Your task to perform on an android device: Open the stopwatch Image 0: 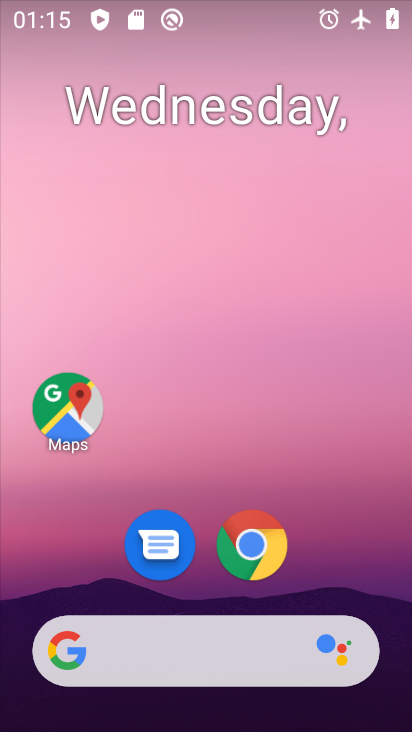
Step 0: drag from (334, 553) to (307, 145)
Your task to perform on an android device: Open the stopwatch Image 1: 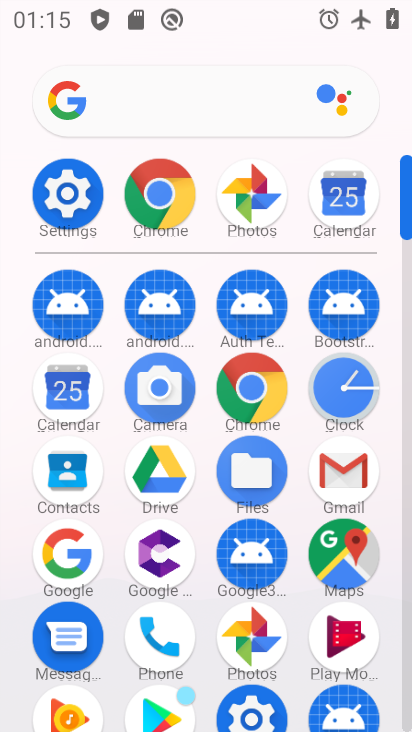
Step 1: click (356, 385)
Your task to perform on an android device: Open the stopwatch Image 2: 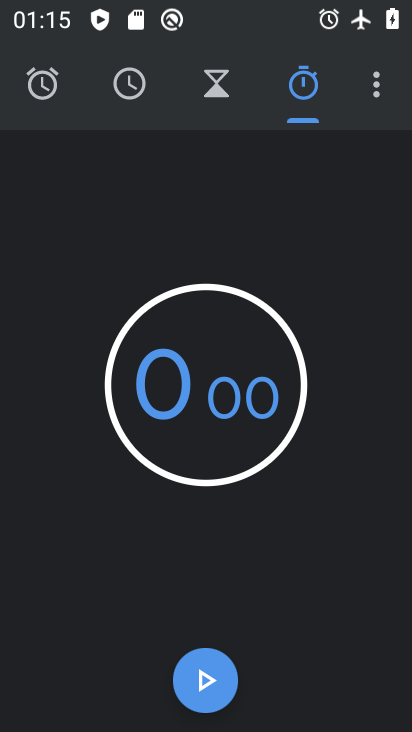
Step 2: task complete